Your task to perform on an android device: turn on data saver in the chrome app Image 0: 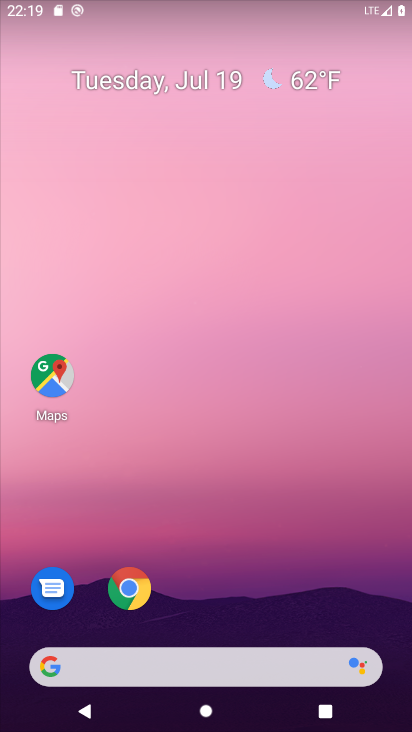
Step 0: click (139, 589)
Your task to perform on an android device: turn on data saver in the chrome app Image 1: 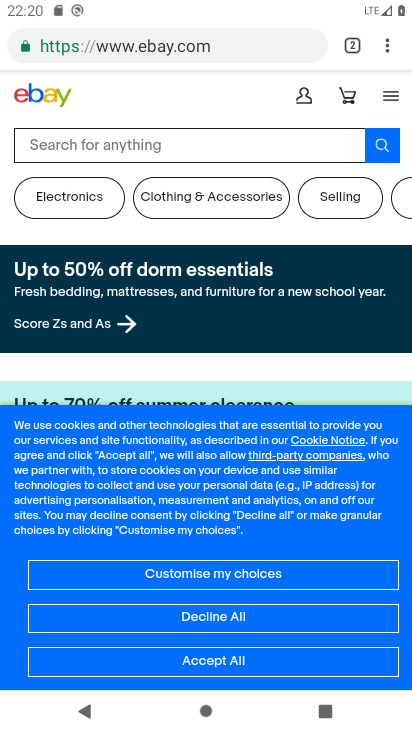
Step 1: click (387, 52)
Your task to perform on an android device: turn on data saver in the chrome app Image 2: 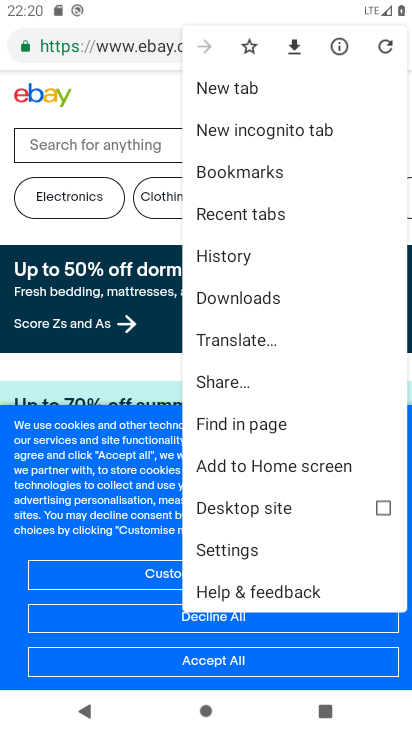
Step 2: click (217, 555)
Your task to perform on an android device: turn on data saver in the chrome app Image 3: 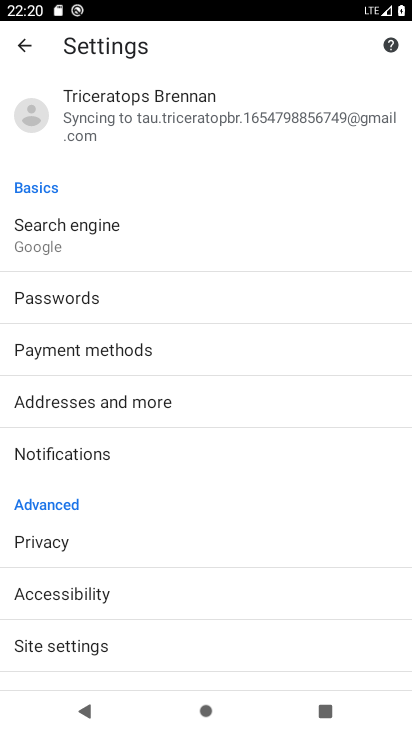
Step 3: drag from (126, 572) to (205, 318)
Your task to perform on an android device: turn on data saver in the chrome app Image 4: 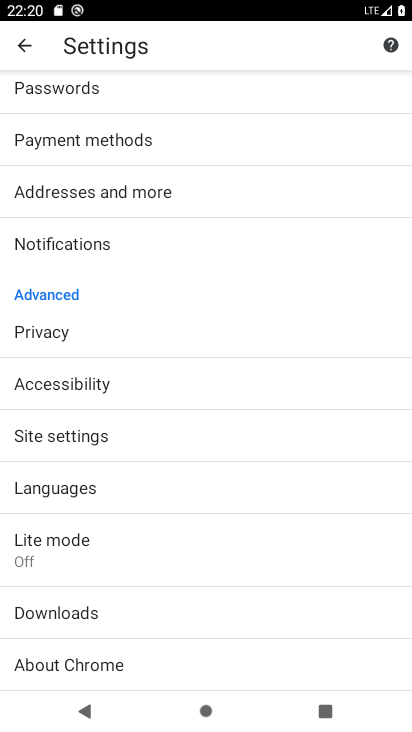
Step 4: click (35, 547)
Your task to perform on an android device: turn on data saver in the chrome app Image 5: 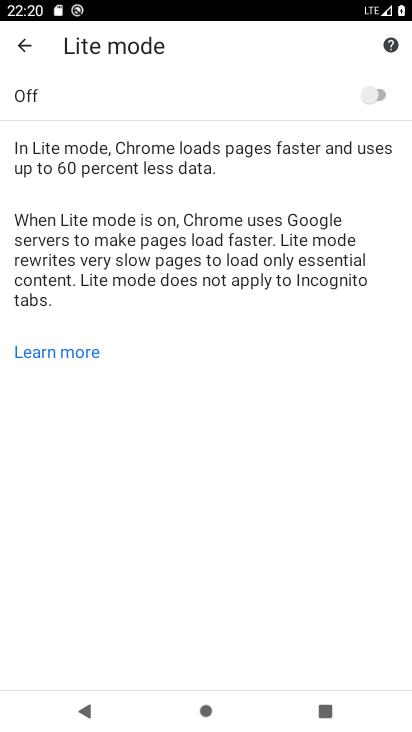
Step 5: click (384, 92)
Your task to perform on an android device: turn on data saver in the chrome app Image 6: 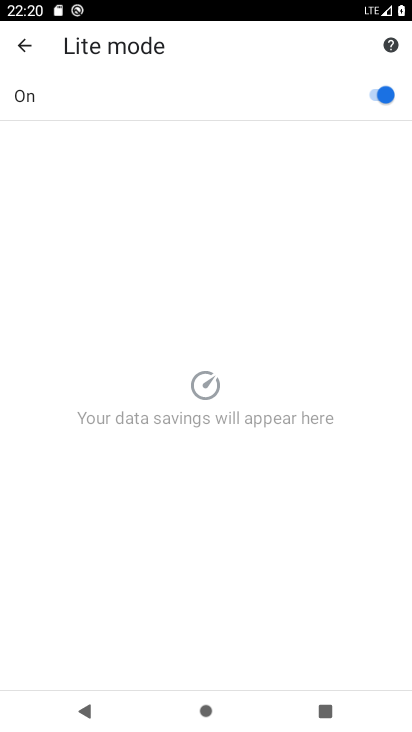
Step 6: task complete